Your task to perform on an android device: Open Android settings Image 0: 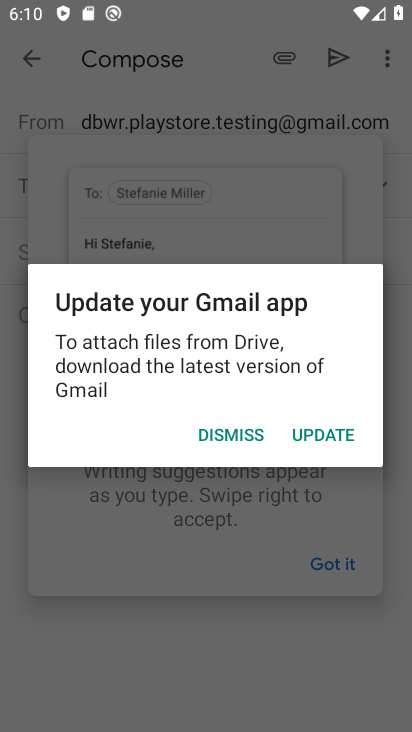
Step 0: click (307, 431)
Your task to perform on an android device: Open Android settings Image 1: 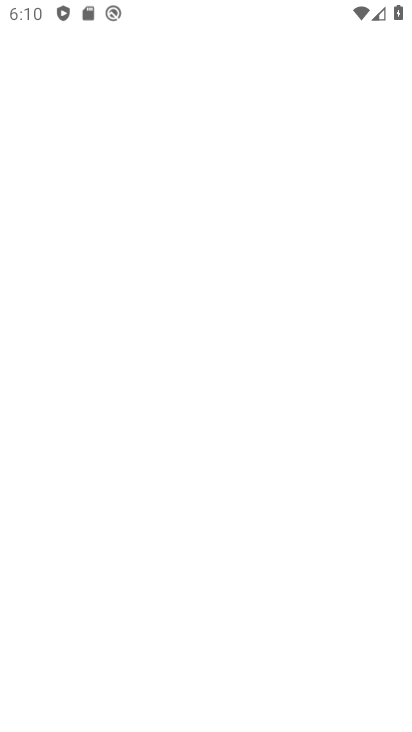
Step 1: press home button
Your task to perform on an android device: Open Android settings Image 2: 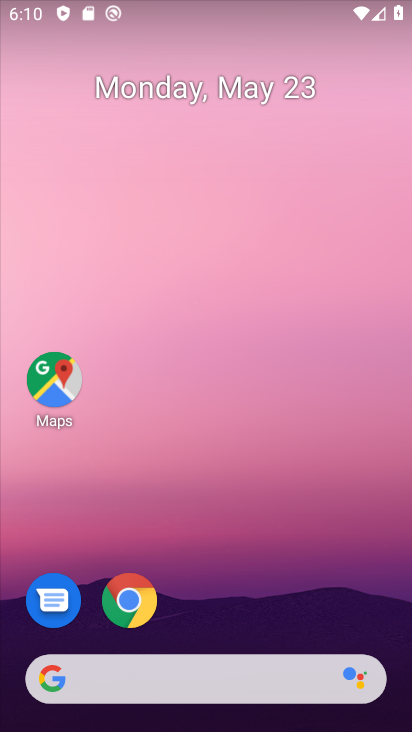
Step 2: drag from (236, 538) to (259, 255)
Your task to perform on an android device: Open Android settings Image 3: 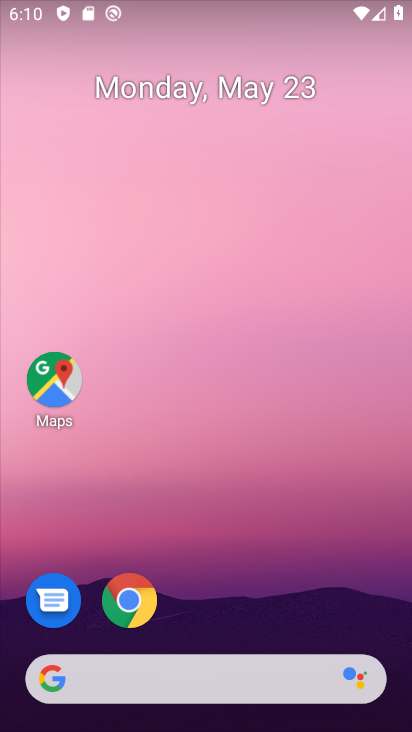
Step 3: drag from (267, 556) to (251, 199)
Your task to perform on an android device: Open Android settings Image 4: 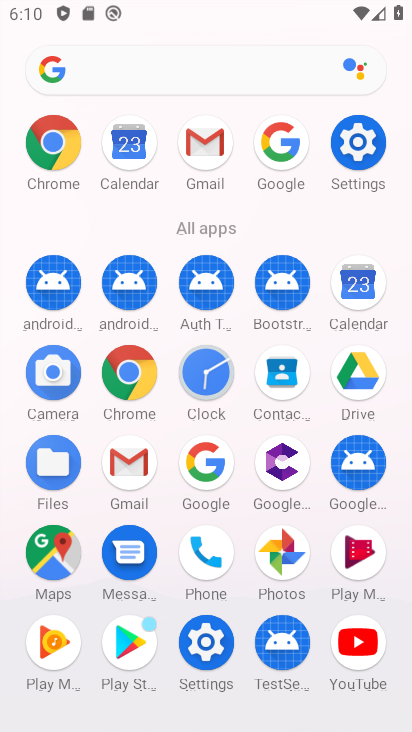
Step 4: click (359, 147)
Your task to perform on an android device: Open Android settings Image 5: 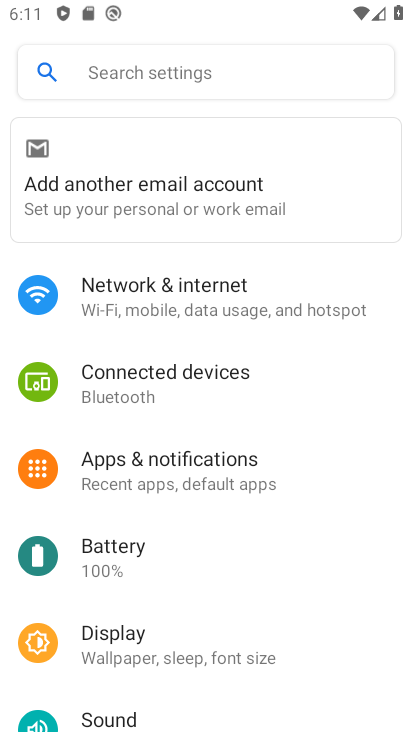
Step 5: task complete